Your task to perform on an android device: Search for Italian restaurants on Maps Image 0: 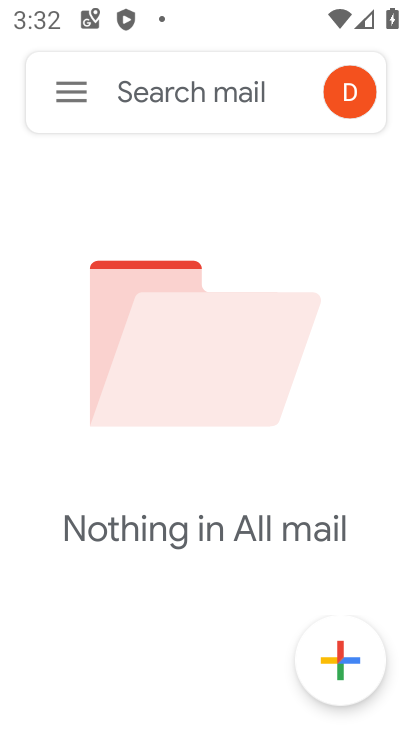
Step 0: press home button
Your task to perform on an android device: Search for Italian restaurants on Maps Image 1: 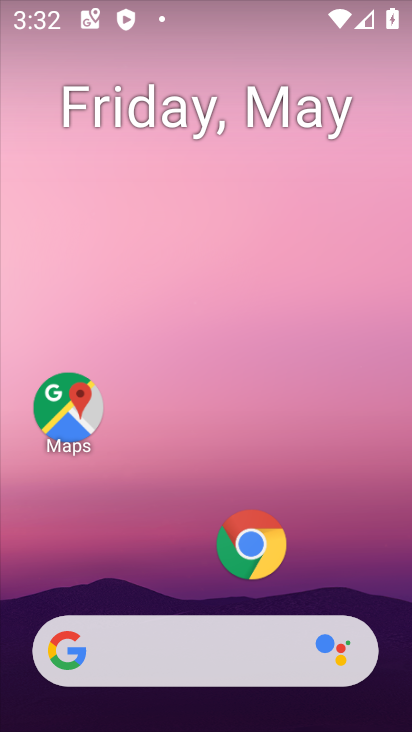
Step 1: click (65, 436)
Your task to perform on an android device: Search for Italian restaurants on Maps Image 2: 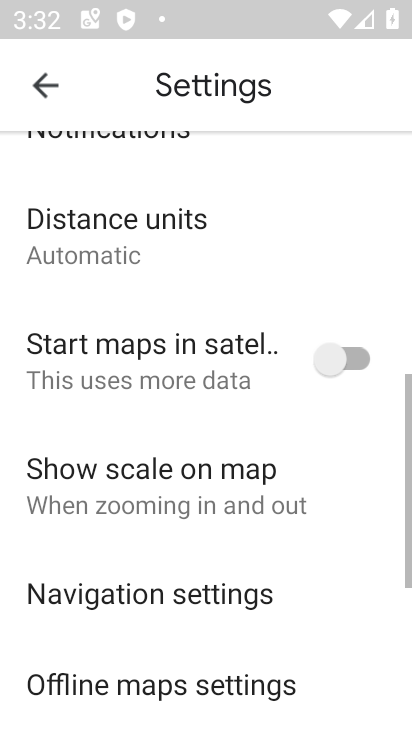
Step 2: click (36, 85)
Your task to perform on an android device: Search for Italian restaurants on Maps Image 3: 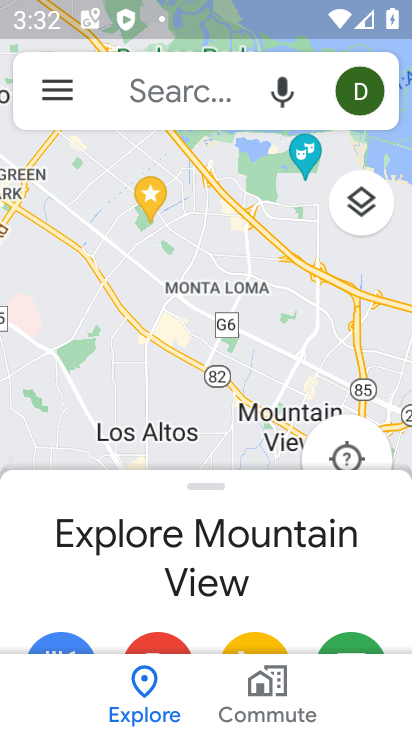
Step 3: click (170, 83)
Your task to perform on an android device: Search for Italian restaurants on Maps Image 4: 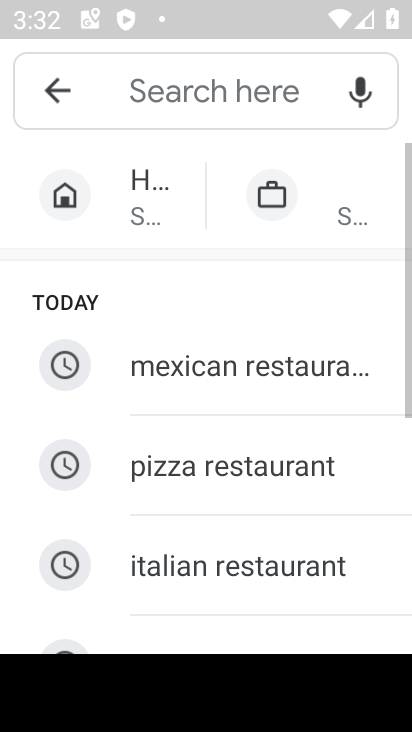
Step 4: click (204, 549)
Your task to perform on an android device: Search for Italian restaurants on Maps Image 5: 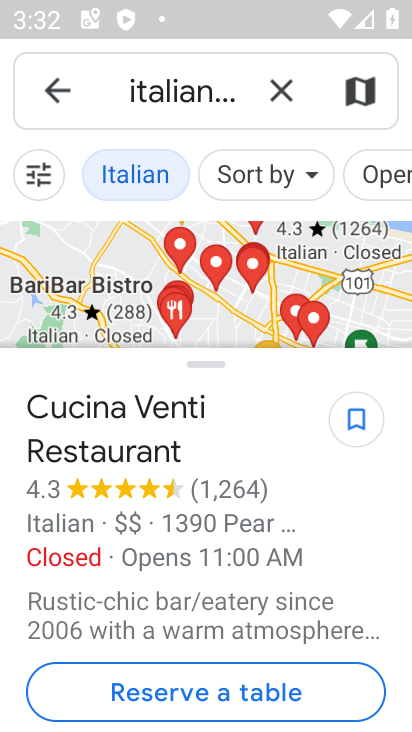
Step 5: task complete